Your task to perform on an android device: check out phone information Image 0: 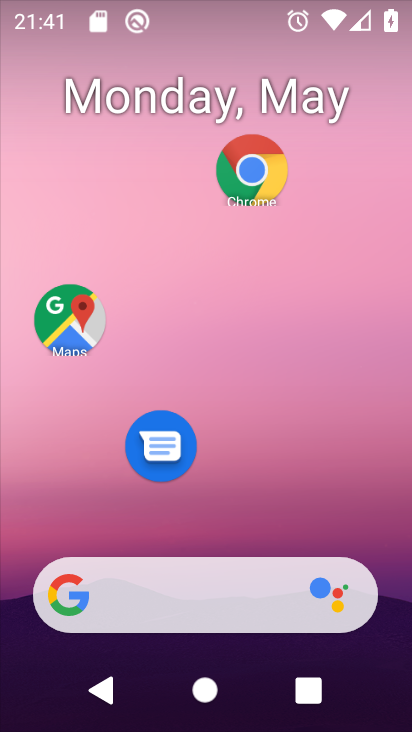
Step 0: click (406, 469)
Your task to perform on an android device: check out phone information Image 1: 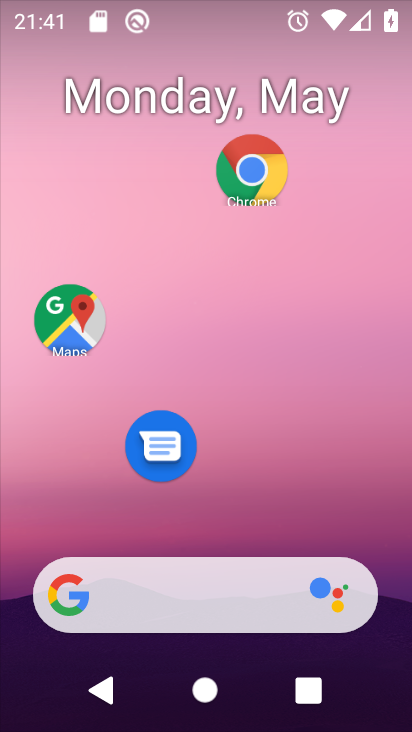
Step 1: drag from (226, 527) to (217, 44)
Your task to perform on an android device: check out phone information Image 2: 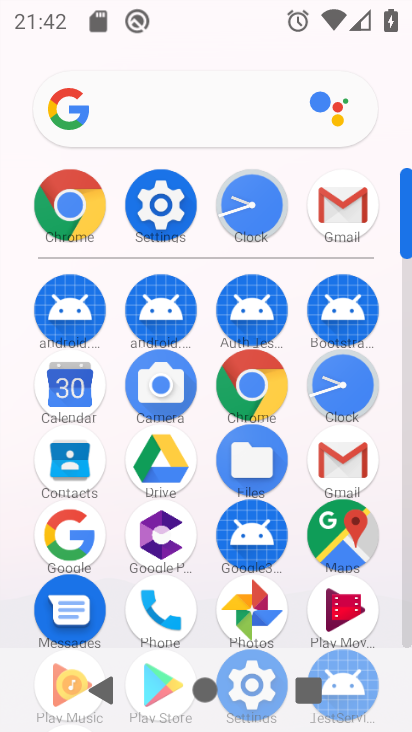
Step 2: click (152, 193)
Your task to perform on an android device: check out phone information Image 3: 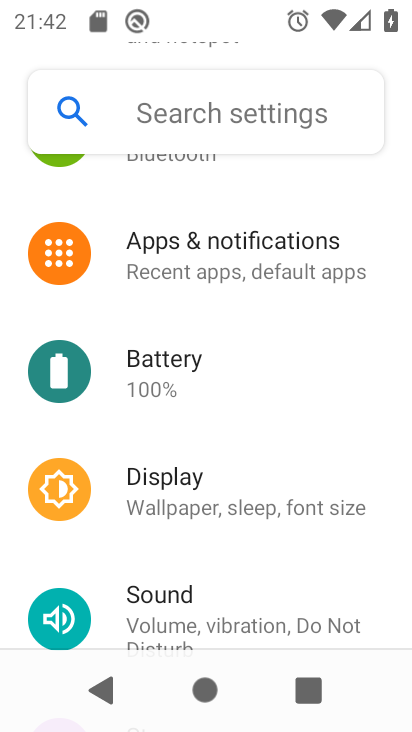
Step 3: drag from (225, 593) to (283, 124)
Your task to perform on an android device: check out phone information Image 4: 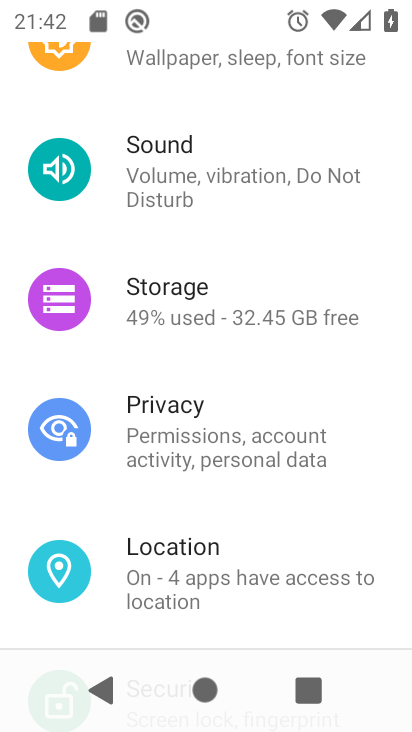
Step 4: drag from (231, 611) to (250, 127)
Your task to perform on an android device: check out phone information Image 5: 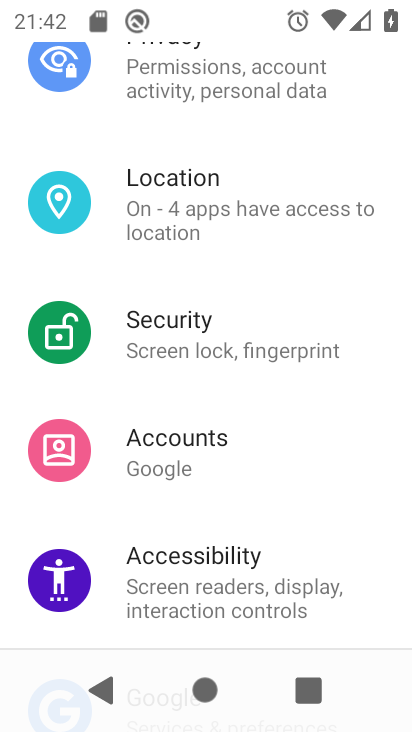
Step 5: drag from (259, 594) to (269, 227)
Your task to perform on an android device: check out phone information Image 6: 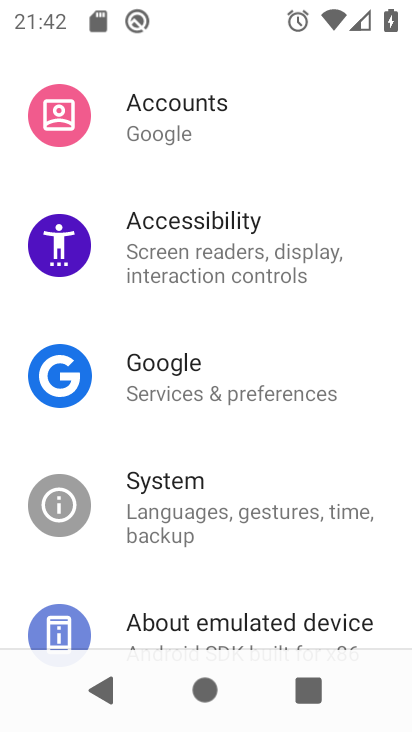
Step 6: click (241, 601)
Your task to perform on an android device: check out phone information Image 7: 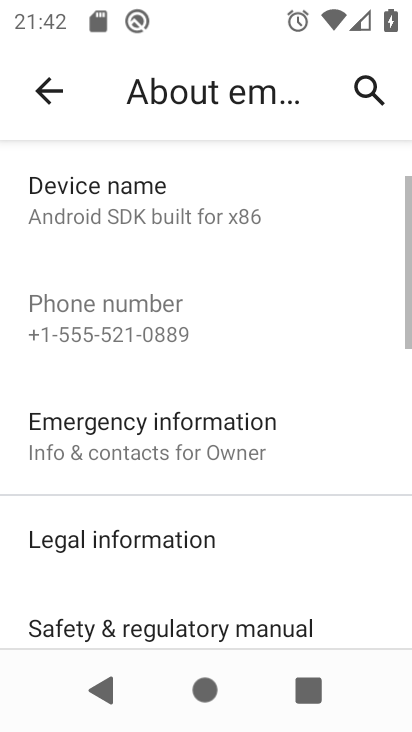
Step 7: task complete